Your task to perform on an android device: open chrome and create a bookmark for the current page Image 0: 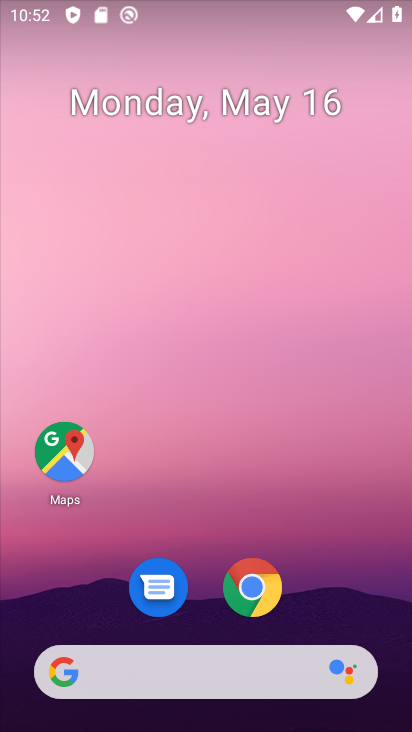
Step 0: drag from (389, 643) to (317, 109)
Your task to perform on an android device: open chrome and create a bookmark for the current page Image 1: 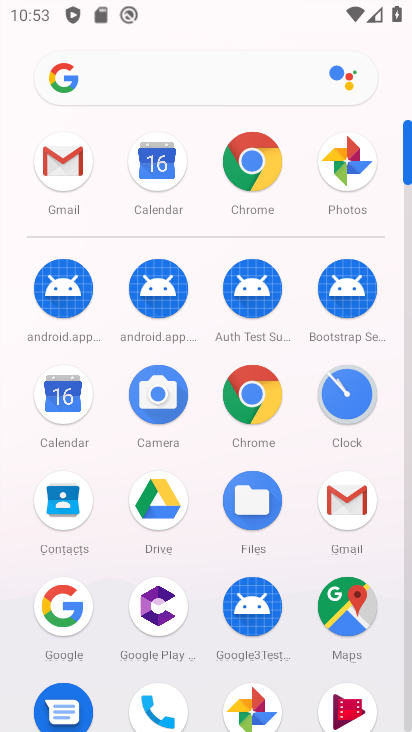
Step 1: click (234, 168)
Your task to perform on an android device: open chrome and create a bookmark for the current page Image 2: 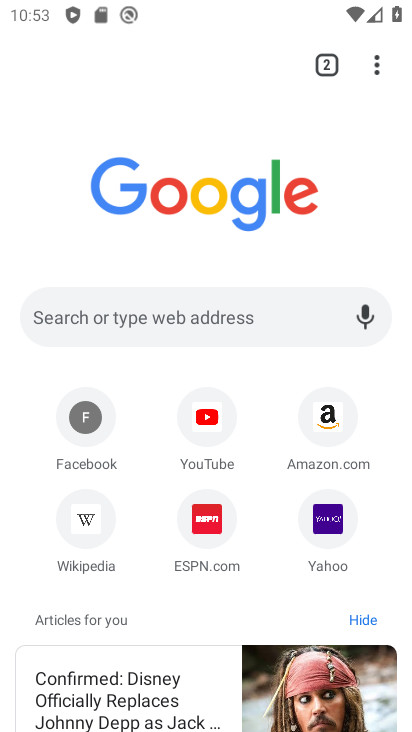
Step 2: click (380, 48)
Your task to perform on an android device: open chrome and create a bookmark for the current page Image 3: 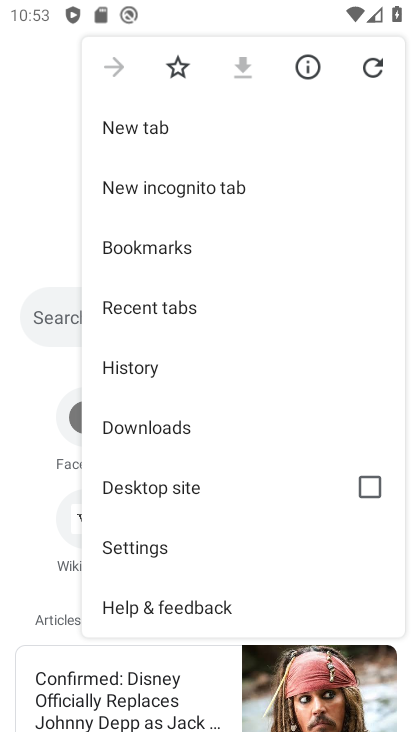
Step 3: click (164, 65)
Your task to perform on an android device: open chrome and create a bookmark for the current page Image 4: 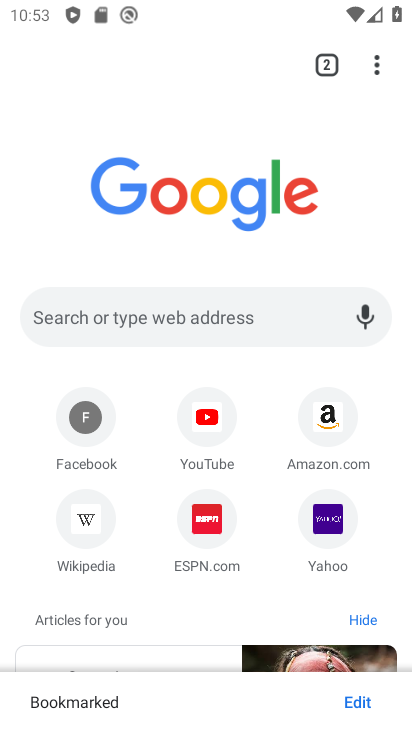
Step 4: task complete